Your task to perform on an android device: see sites visited before in the chrome app Image 0: 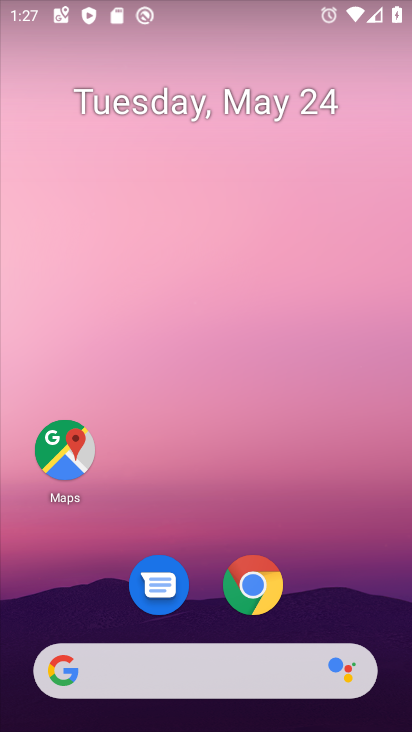
Step 0: click (269, 580)
Your task to perform on an android device: see sites visited before in the chrome app Image 1: 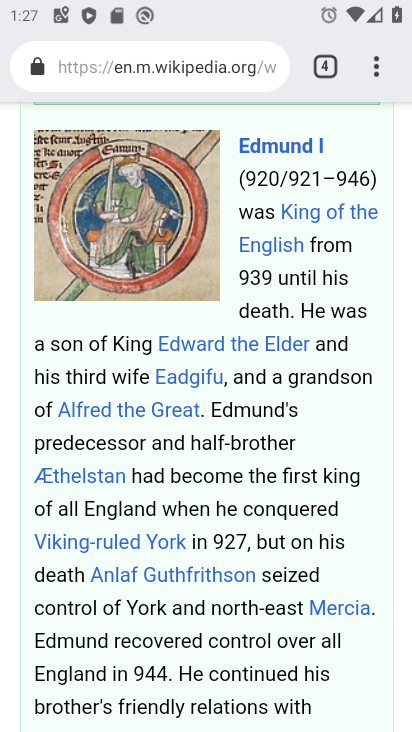
Step 1: click (361, 81)
Your task to perform on an android device: see sites visited before in the chrome app Image 2: 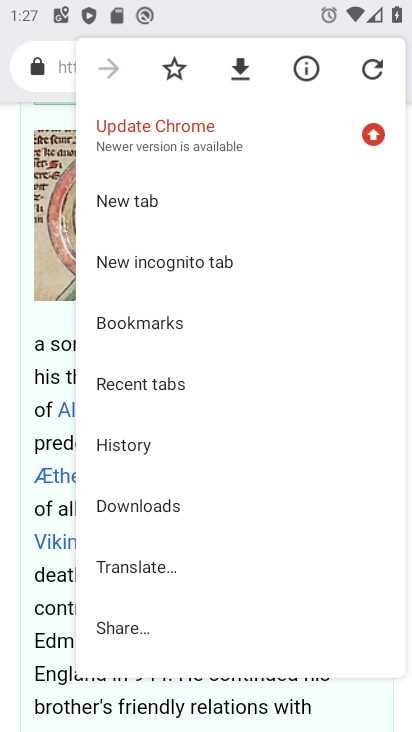
Step 2: click (138, 379)
Your task to perform on an android device: see sites visited before in the chrome app Image 3: 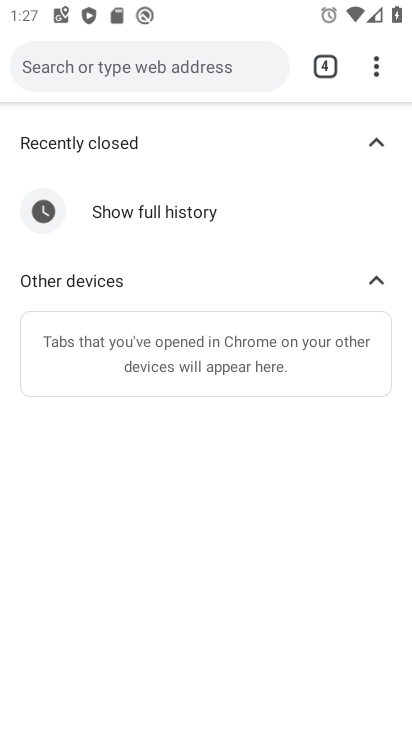
Step 3: task complete